Your task to perform on an android device: check data usage Image 0: 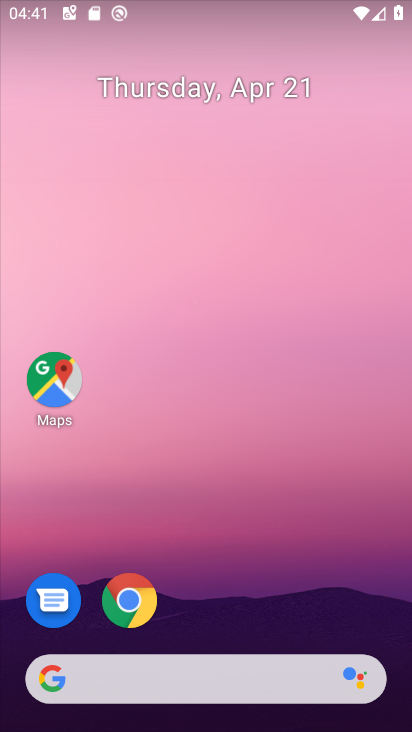
Step 0: drag from (341, 566) to (369, 9)
Your task to perform on an android device: check data usage Image 1: 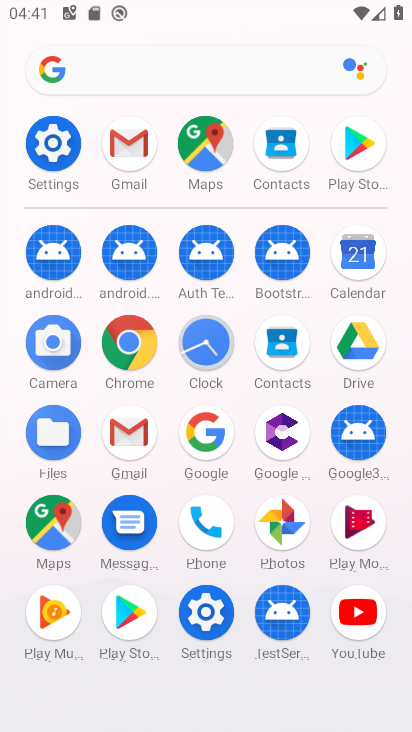
Step 1: click (59, 152)
Your task to perform on an android device: check data usage Image 2: 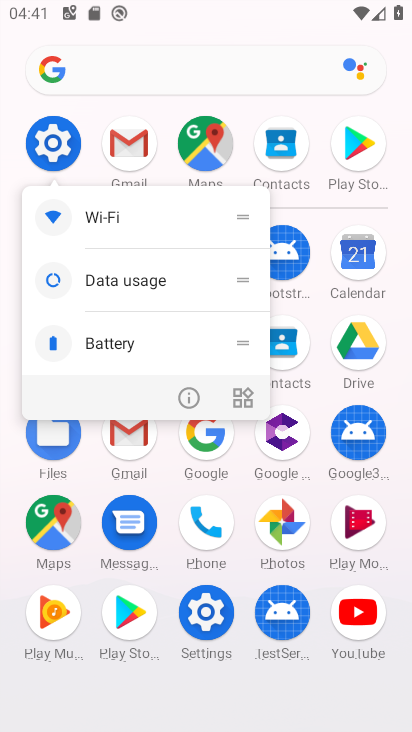
Step 2: click (51, 149)
Your task to perform on an android device: check data usage Image 3: 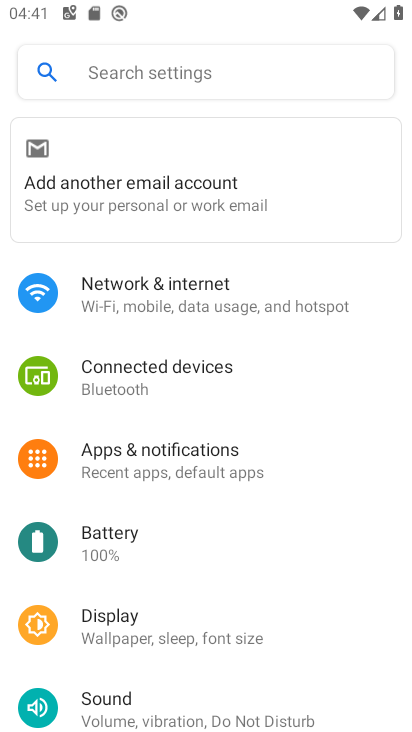
Step 3: click (171, 297)
Your task to perform on an android device: check data usage Image 4: 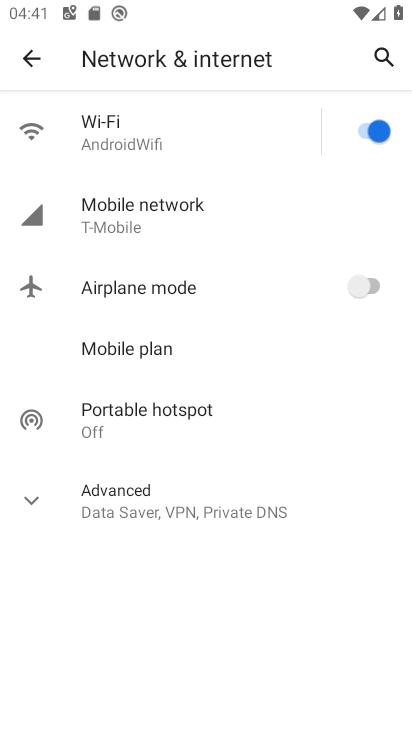
Step 4: click (134, 225)
Your task to perform on an android device: check data usage Image 5: 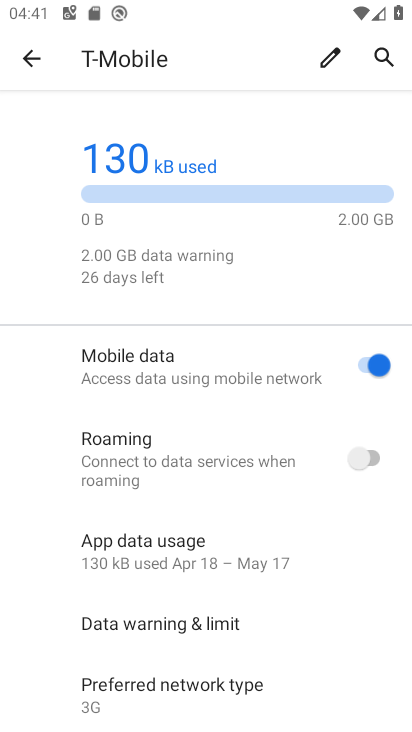
Step 5: click (155, 547)
Your task to perform on an android device: check data usage Image 6: 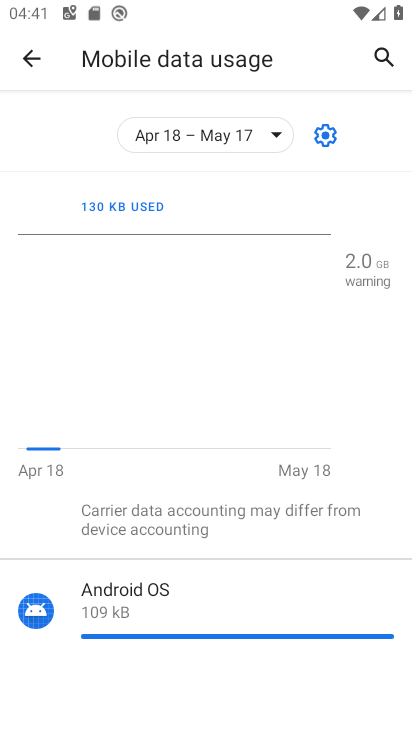
Step 6: task complete